Your task to perform on an android device: turn on improve location accuracy Image 0: 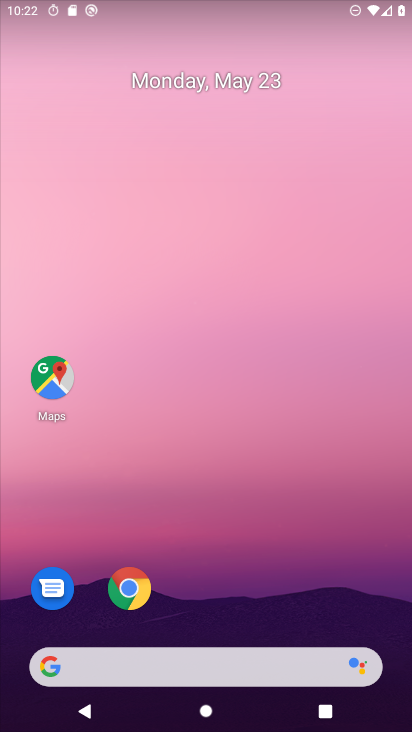
Step 0: drag from (398, 700) to (362, 226)
Your task to perform on an android device: turn on improve location accuracy Image 1: 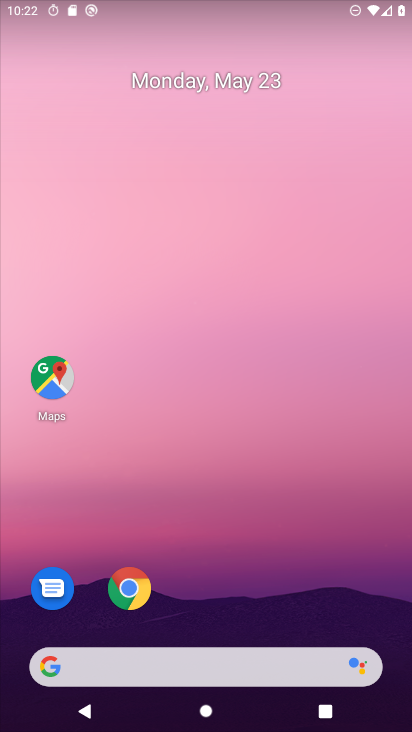
Step 1: drag from (400, 691) to (317, 124)
Your task to perform on an android device: turn on improve location accuracy Image 2: 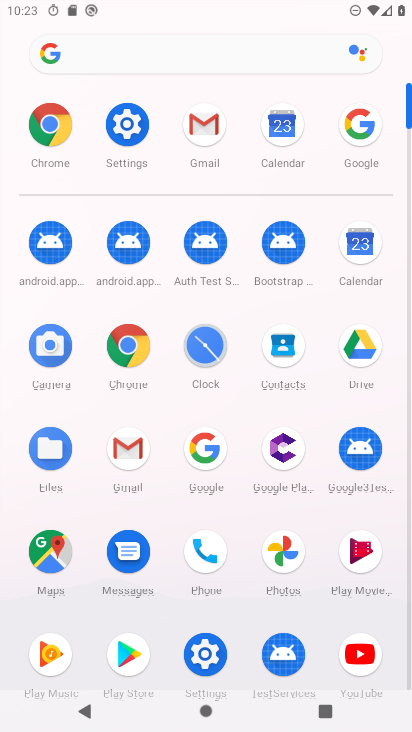
Step 2: click (204, 656)
Your task to perform on an android device: turn on improve location accuracy Image 3: 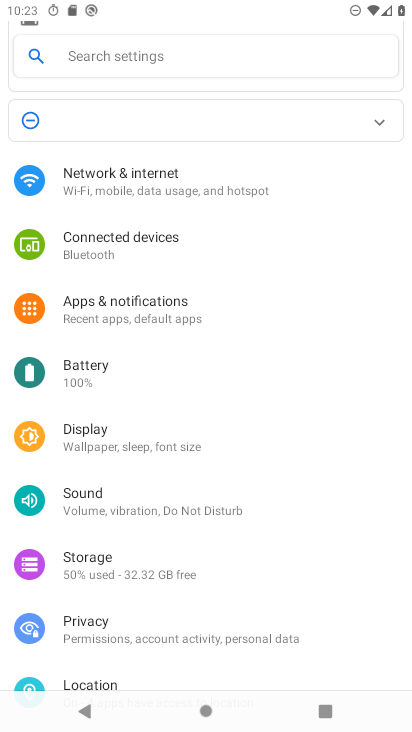
Step 3: drag from (336, 656) to (323, 269)
Your task to perform on an android device: turn on improve location accuracy Image 4: 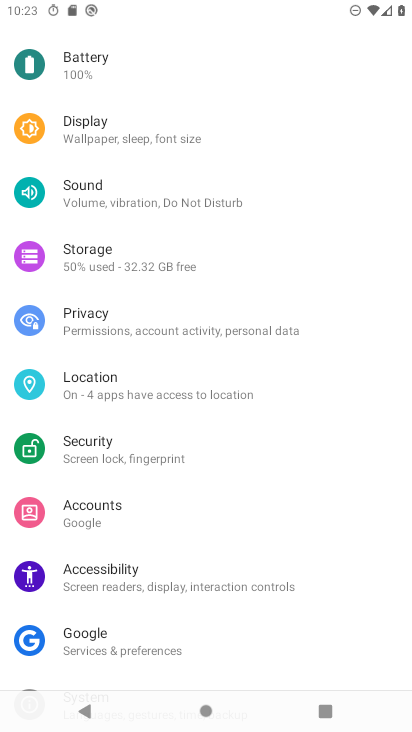
Step 4: click (106, 388)
Your task to perform on an android device: turn on improve location accuracy Image 5: 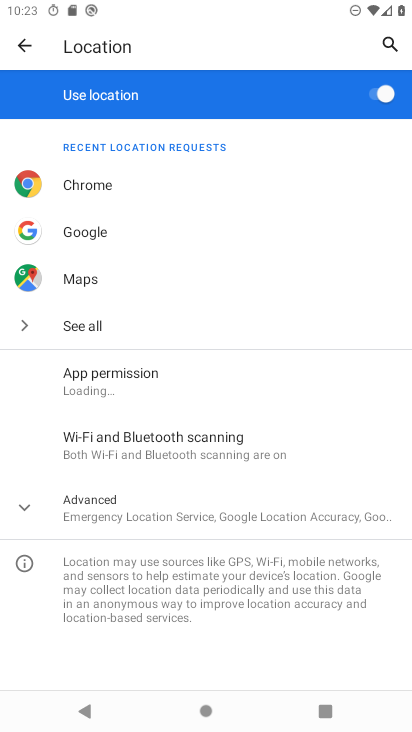
Step 5: click (27, 501)
Your task to perform on an android device: turn on improve location accuracy Image 6: 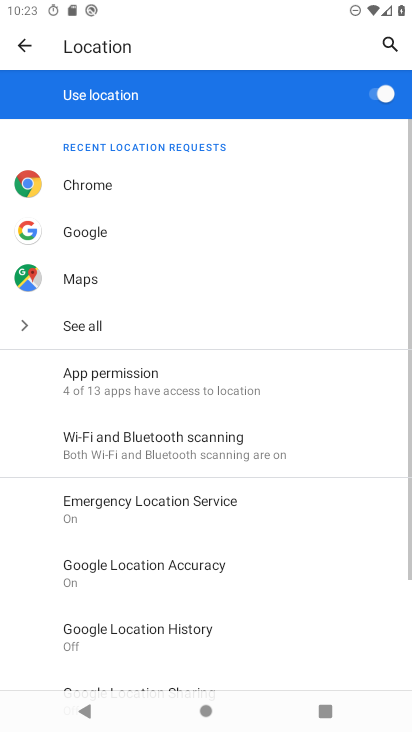
Step 6: task complete